Your task to perform on an android device: install app "Facebook Messenger" Image 0: 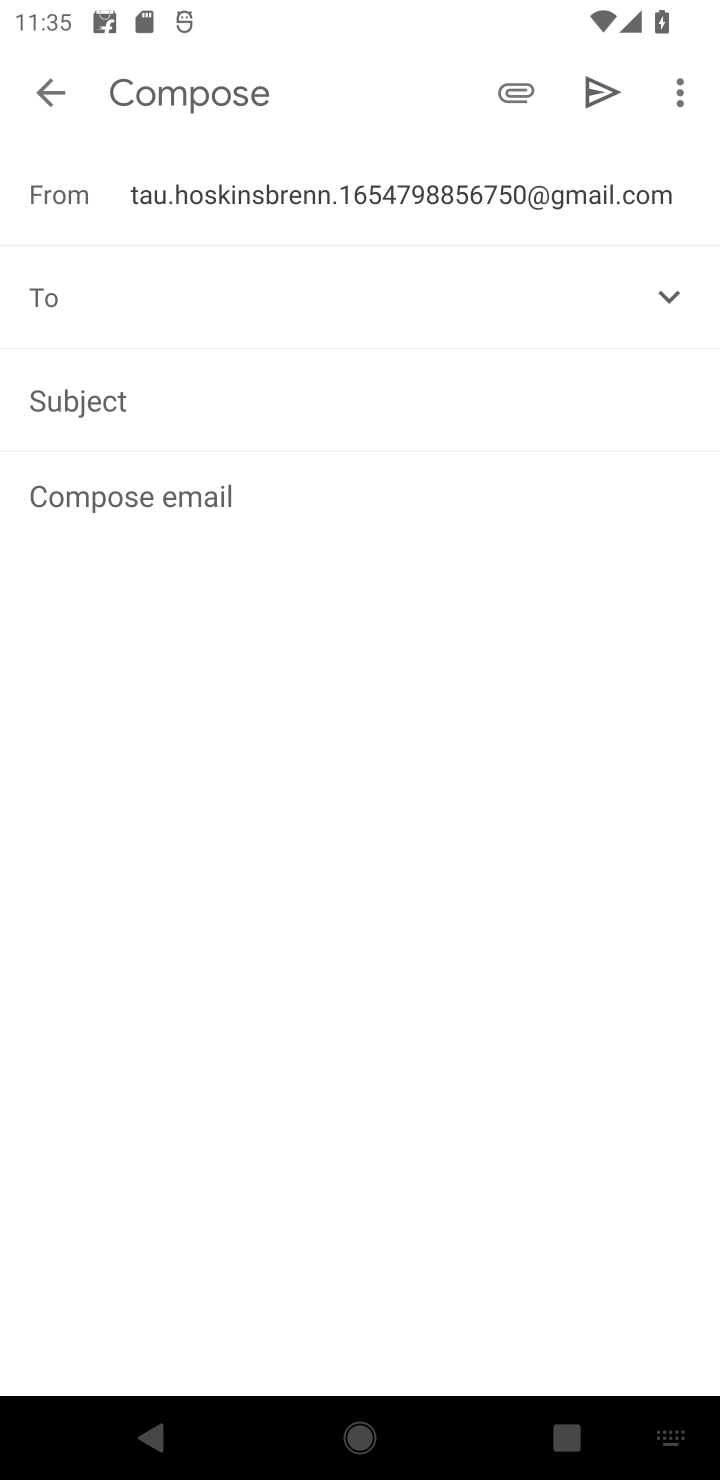
Step 0: press home button
Your task to perform on an android device: install app "Facebook Messenger" Image 1: 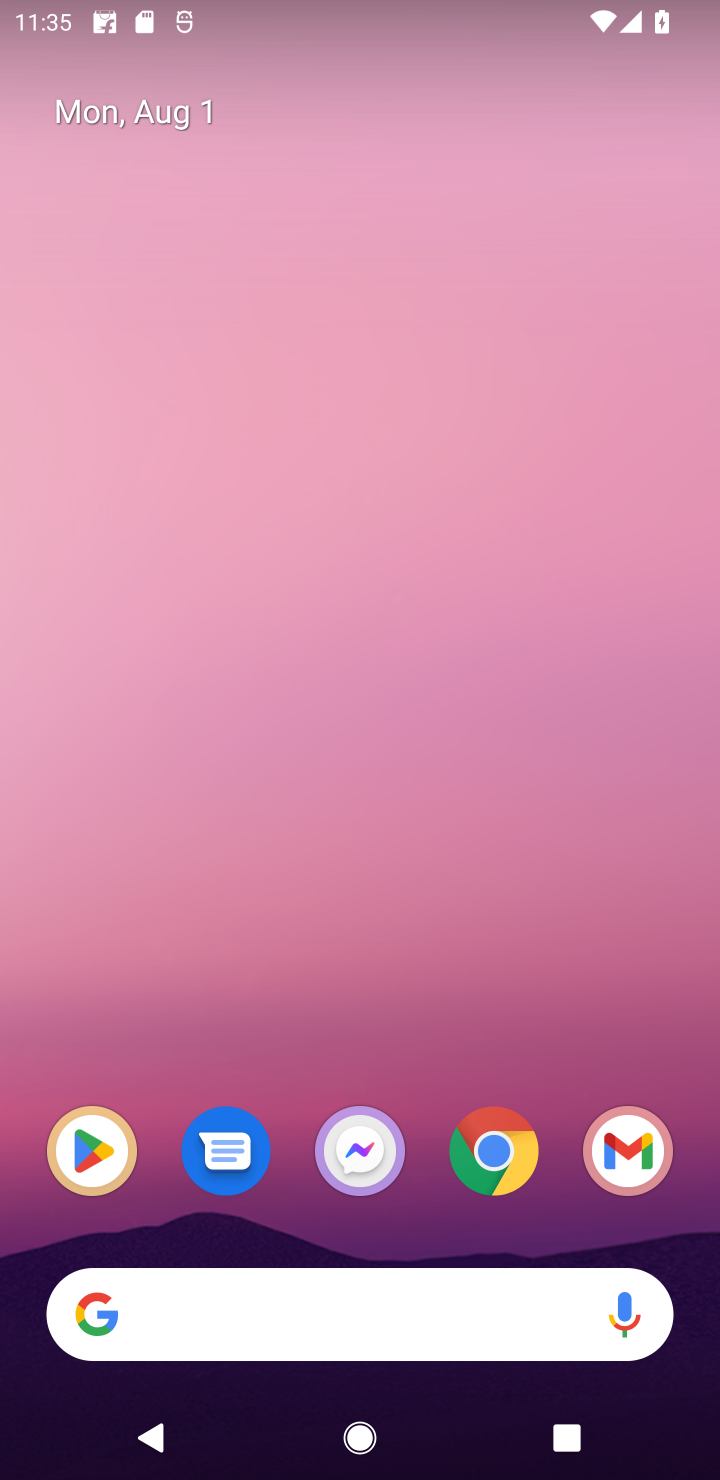
Step 1: click (115, 1138)
Your task to perform on an android device: install app "Facebook Messenger" Image 2: 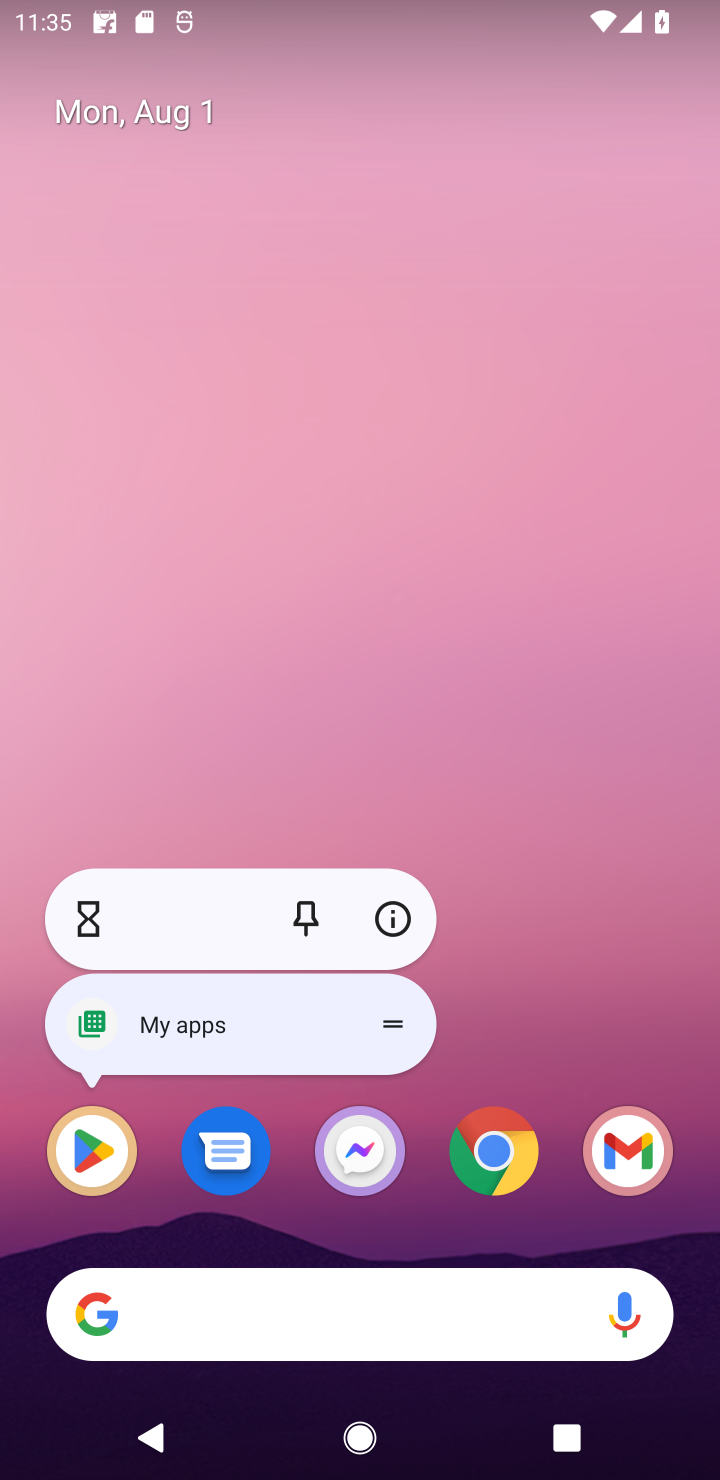
Step 2: click (115, 1138)
Your task to perform on an android device: install app "Facebook Messenger" Image 3: 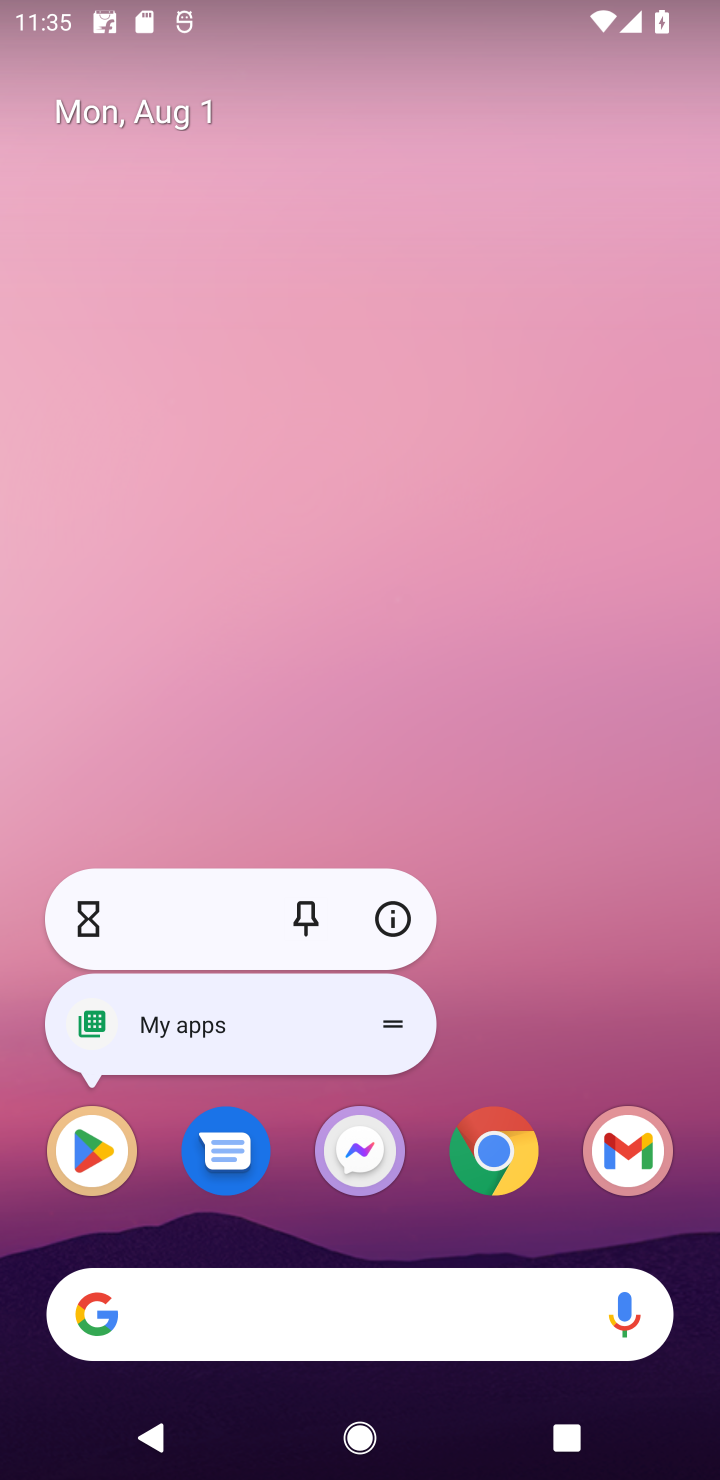
Step 3: click (111, 1168)
Your task to perform on an android device: install app "Facebook Messenger" Image 4: 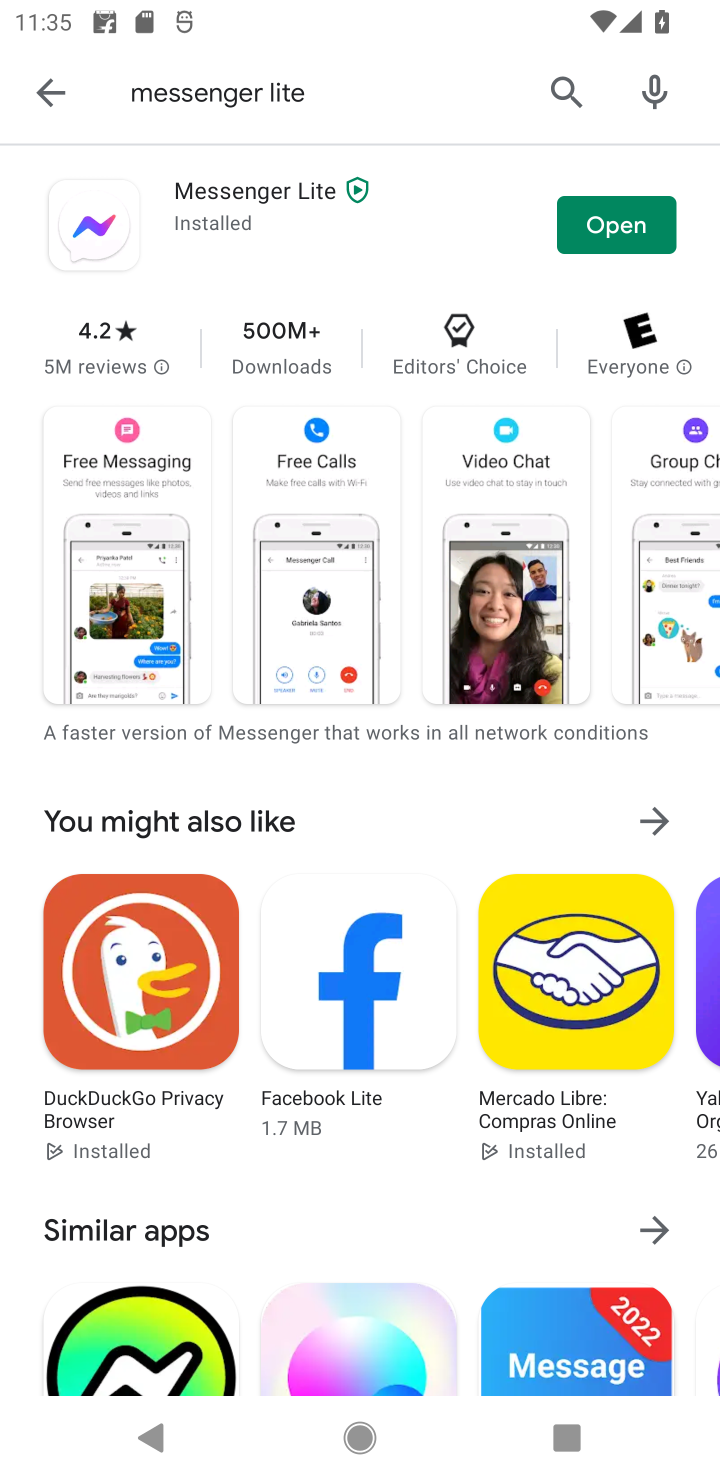
Step 4: click (111, 1168)
Your task to perform on an android device: install app "Facebook Messenger" Image 5: 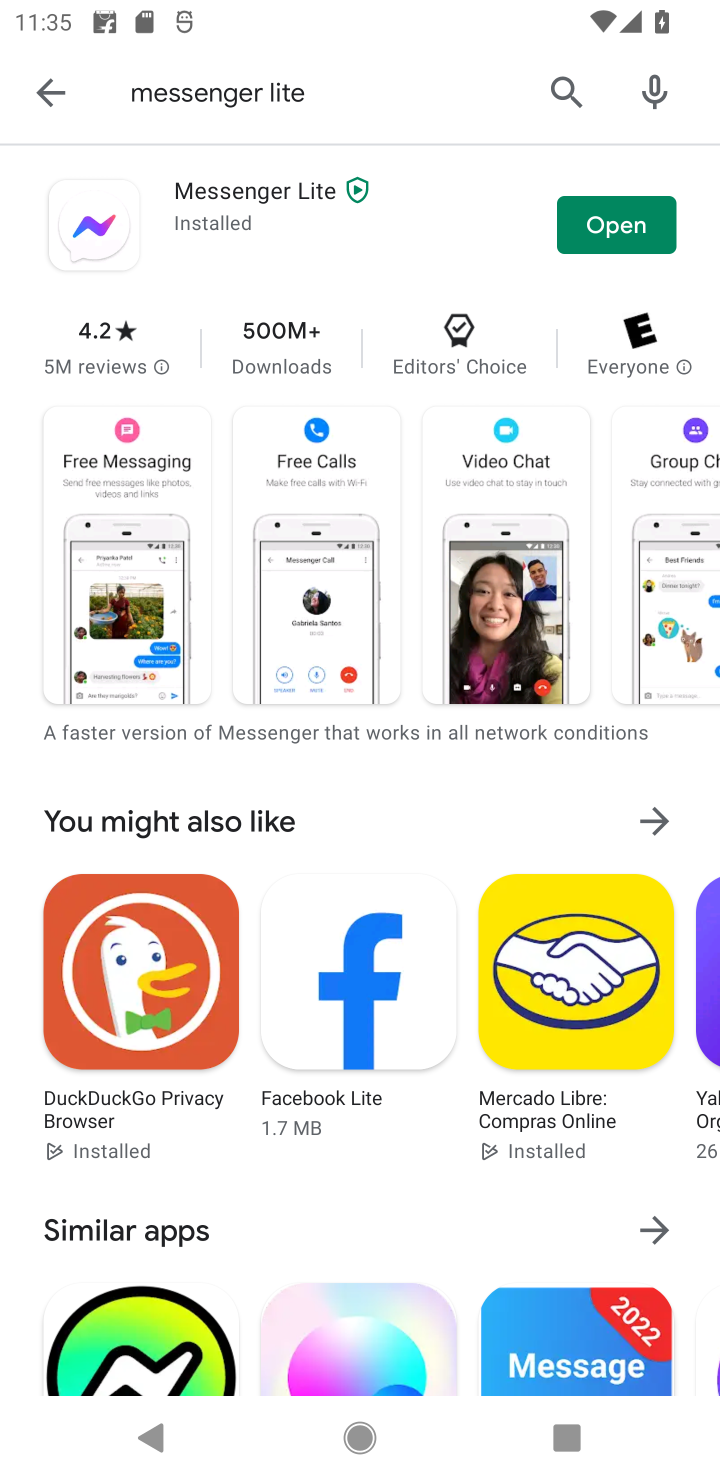
Step 5: click (581, 74)
Your task to perform on an android device: install app "Facebook Messenger" Image 6: 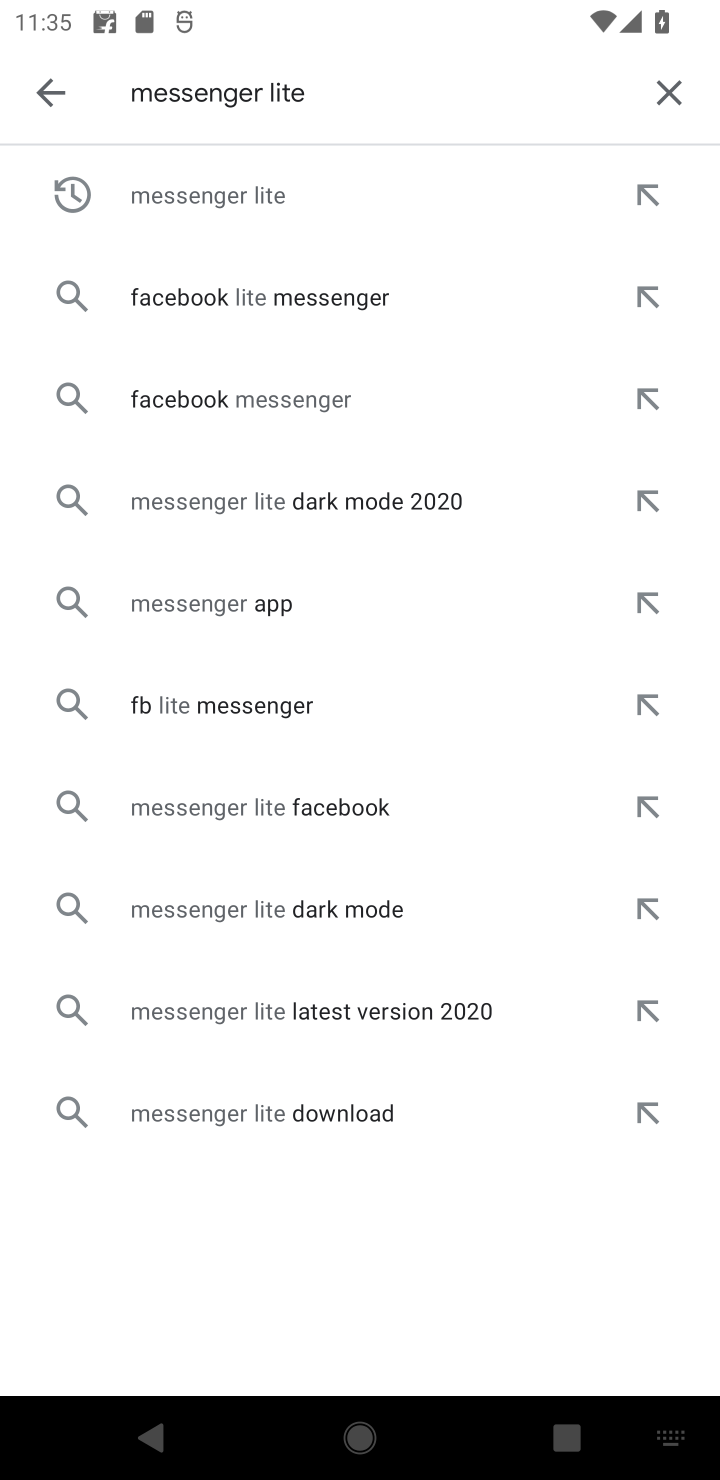
Step 6: click (659, 115)
Your task to perform on an android device: install app "Facebook Messenger" Image 7: 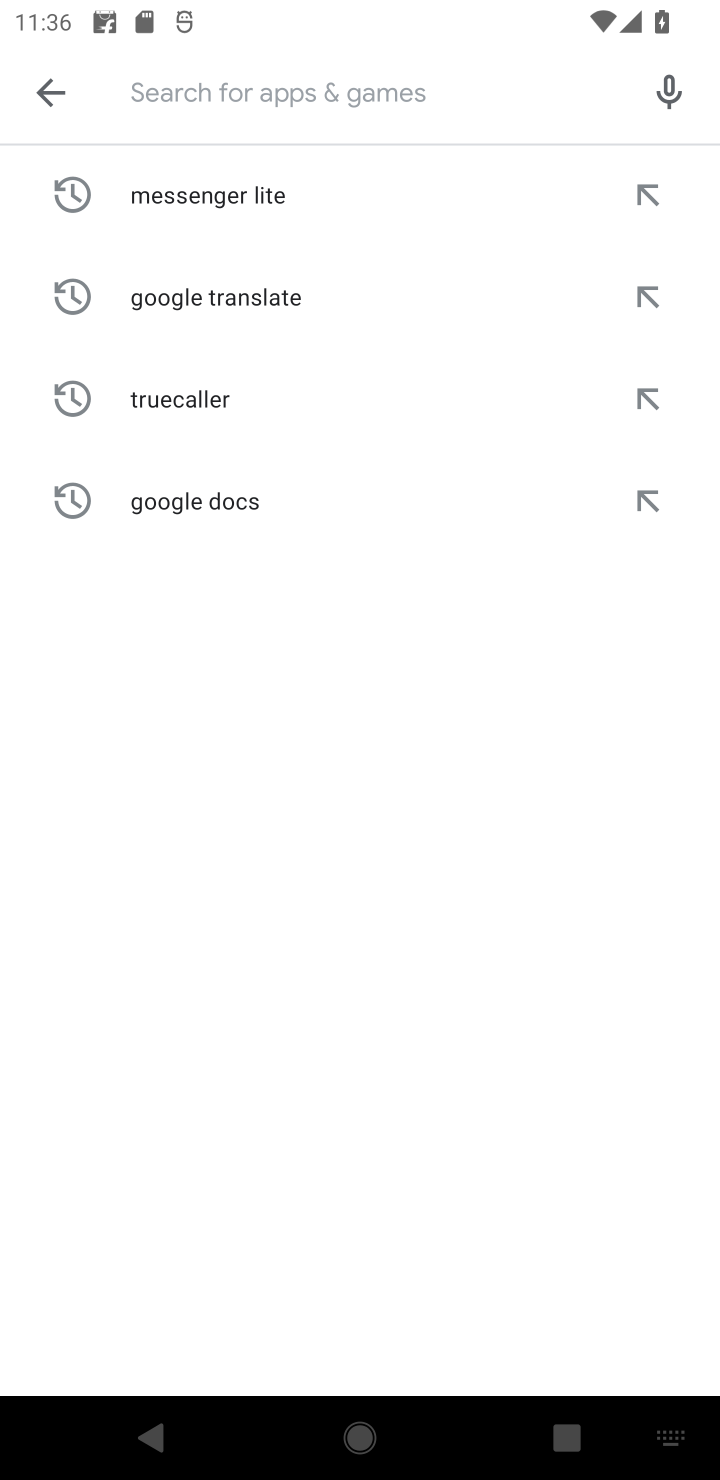
Step 7: type "Facebook Messenger"
Your task to perform on an android device: install app "Facebook Messenger" Image 8: 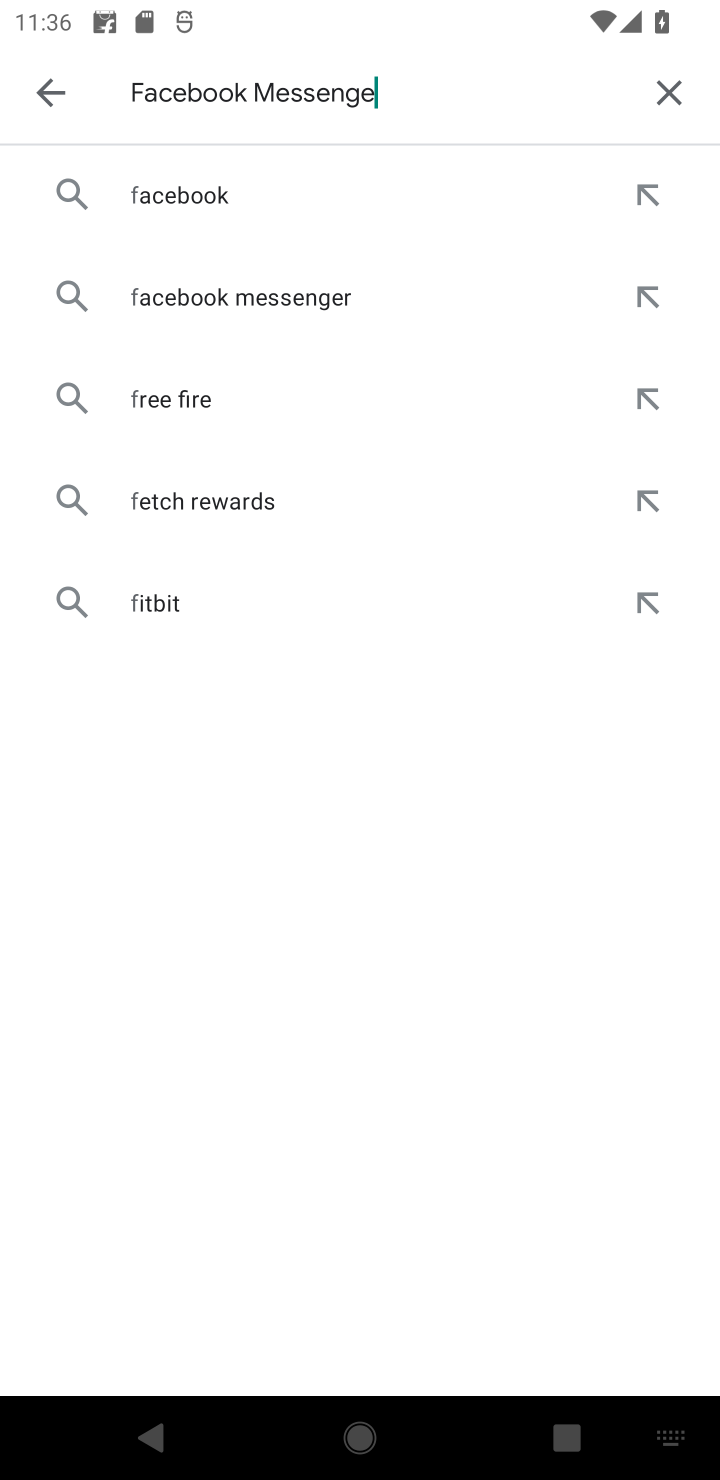
Step 8: type ""
Your task to perform on an android device: install app "Facebook Messenger" Image 9: 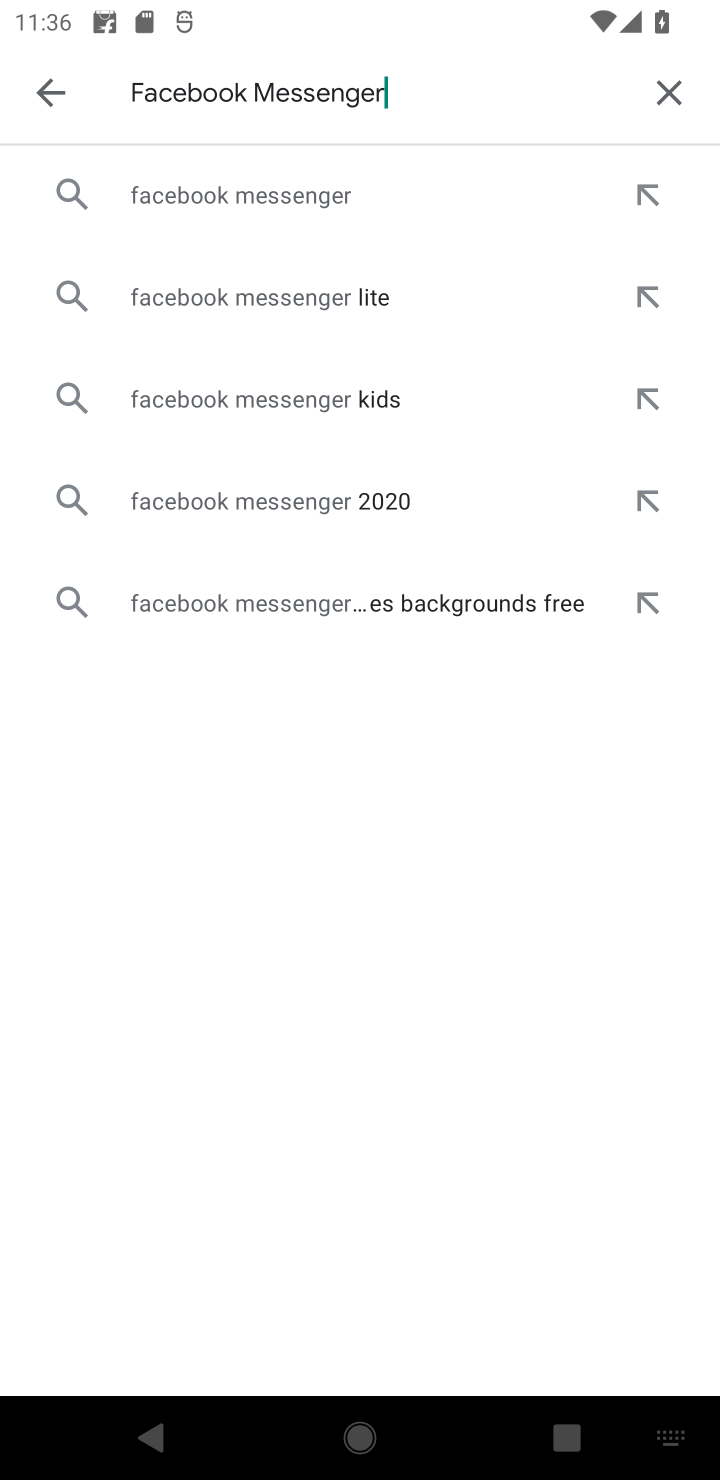
Step 9: click (366, 201)
Your task to perform on an android device: install app "Facebook Messenger" Image 10: 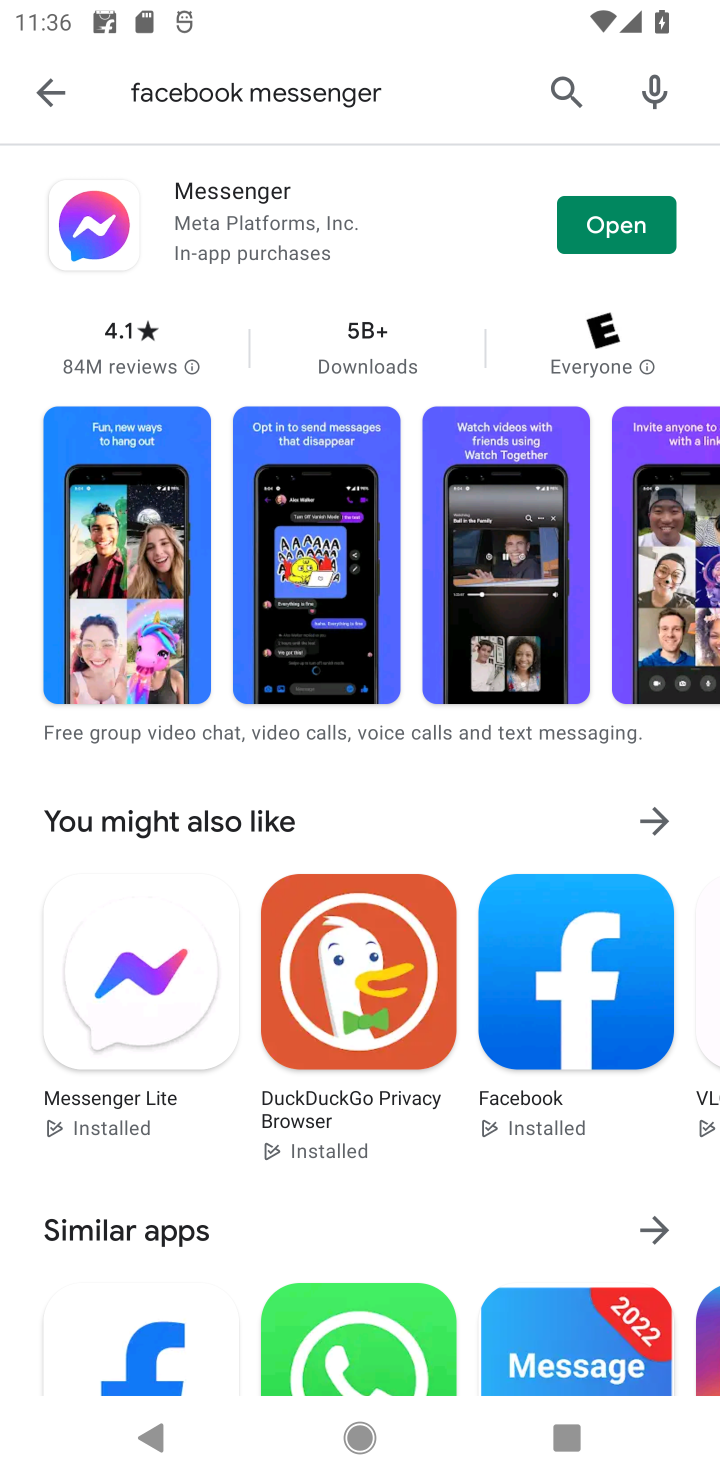
Step 10: task complete